Your task to perform on an android device: Go to location settings Image 0: 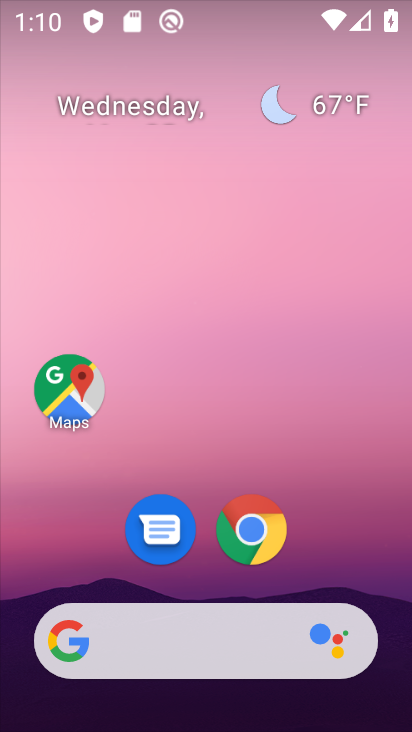
Step 0: drag from (326, 521) to (284, 131)
Your task to perform on an android device: Go to location settings Image 1: 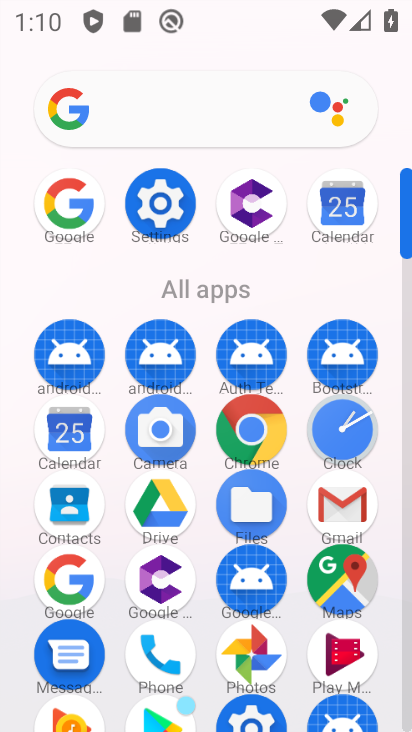
Step 1: click (160, 202)
Your task to perform on an android device: Go to location settings Image 2: 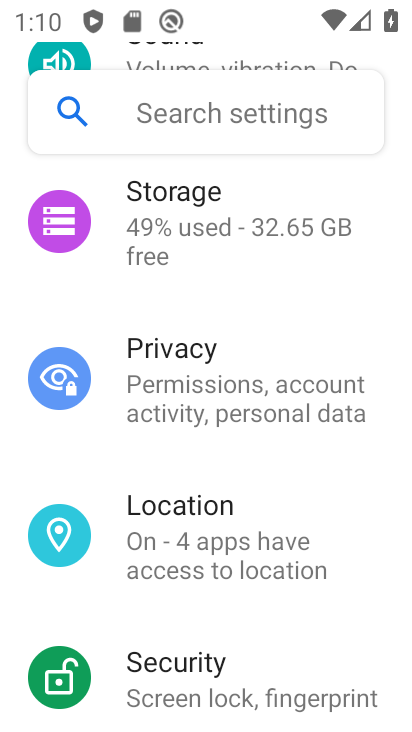
Step 2: click (200, 510)
Your task to perform on an android device: Go to location settings Image 3: 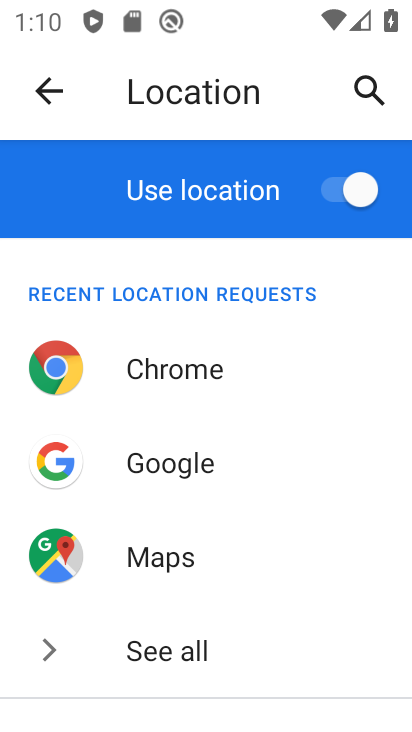
Step 3: task complete